Your task to perform on an android device: Go to Wikipedia Image 0: 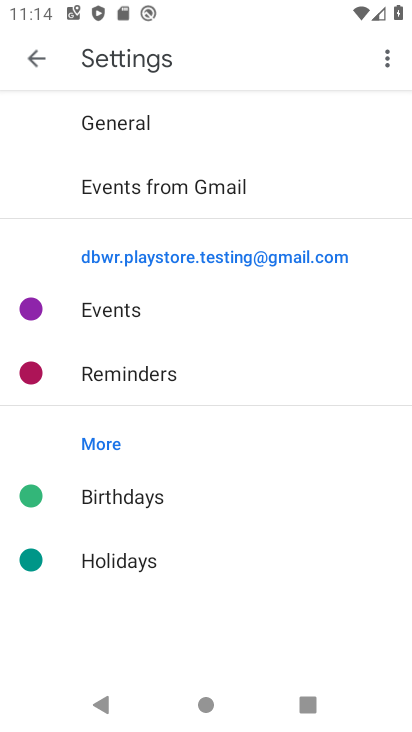
Step 0: press home button
Your task to perform on an android device: Go to Wikipedia Image 1: 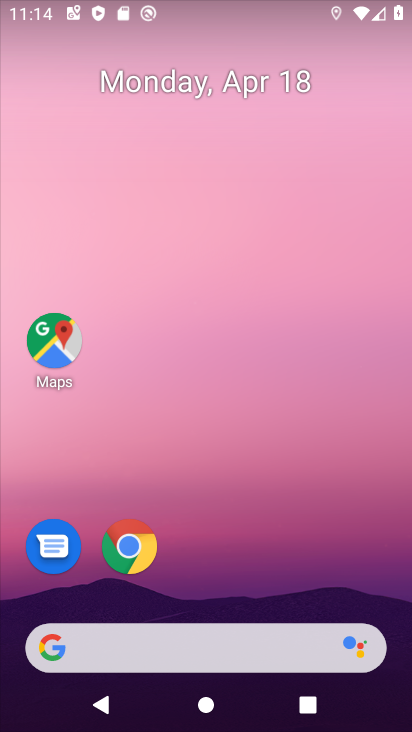
Step 1: click (149, 546)
Your task to perform on an android device: Go to Wikipedia Image 2: 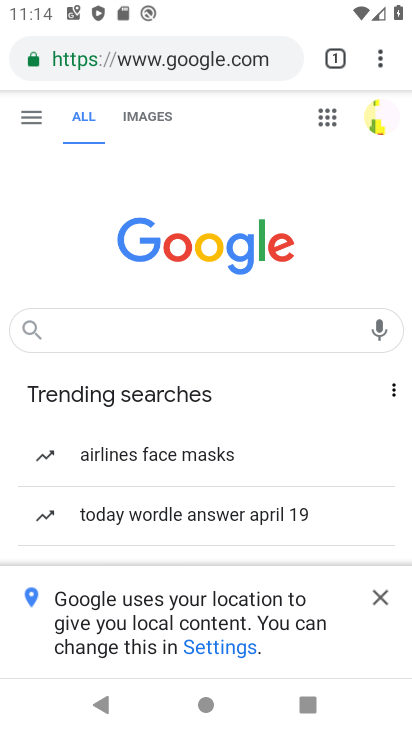
Step 2: click (387, 596)
Your task to perform on an android device: Go to Wikipedia Image 3: 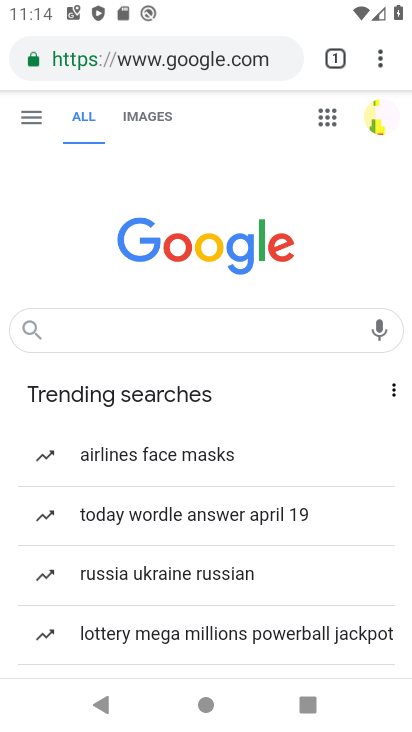
Step 3: click (187, 55)
Your task to perform on an android device: Go to Wikipedia Image 4: 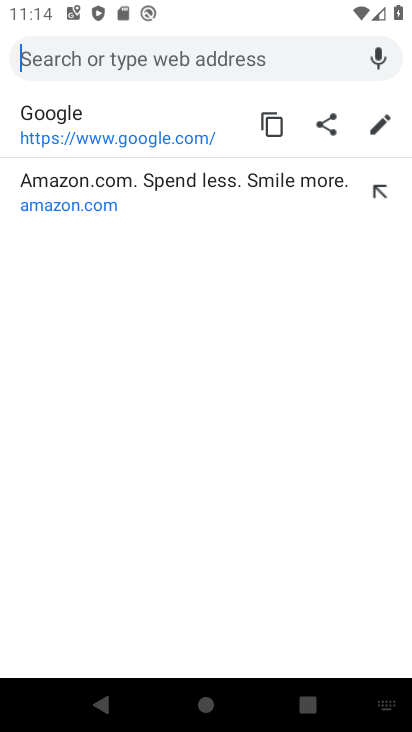
Step 4: type "wikipwdia"
Your task to perform on an android device: Go to Wikipedia Image 5: 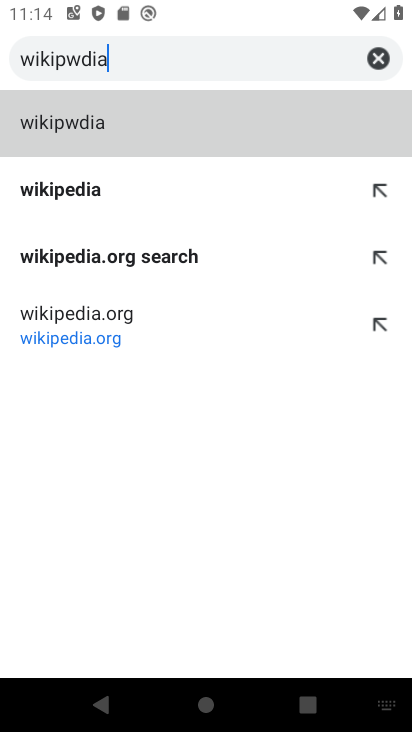
Step 5: click (123, 190)
Your task to perform on an android device: Go to Wikipedia Image 6: 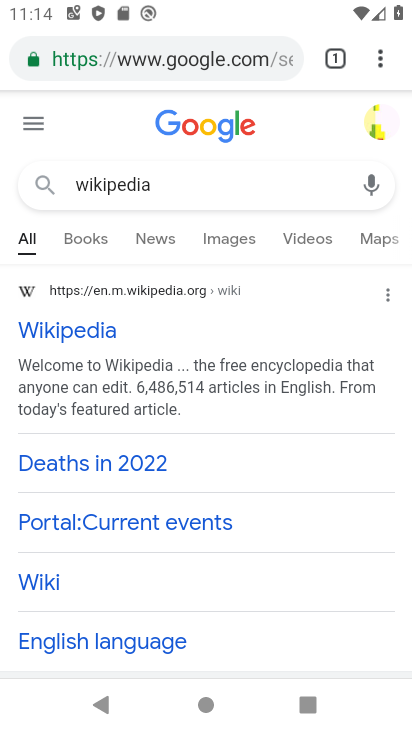
Step 6: click (52, 327)
Your task to perform on an android device: Go to Wikipedia Image 7: 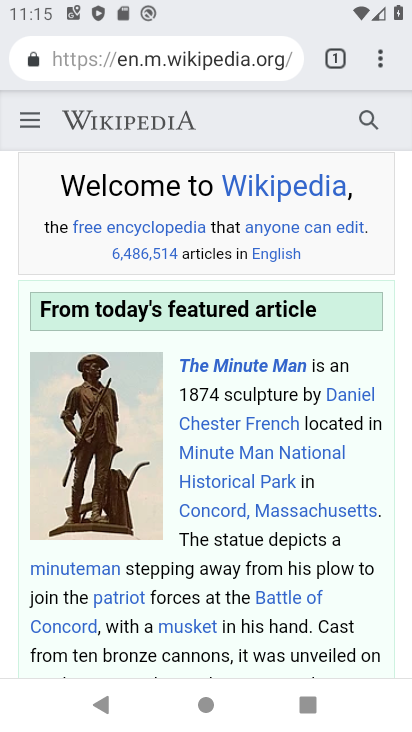
Step 7: task complete